Your task to perform on an android device: star an email in the gmail app Image 0: 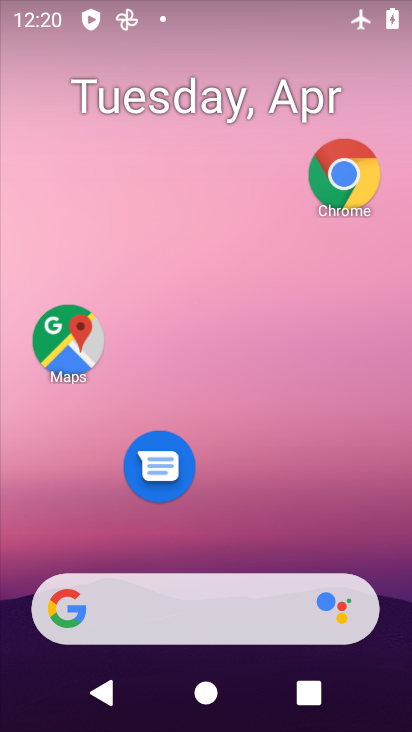
Step 0: drag from (263, 509) to (196, 12)
Your task to perform on an android device: star an email in the gmail app Image 1: 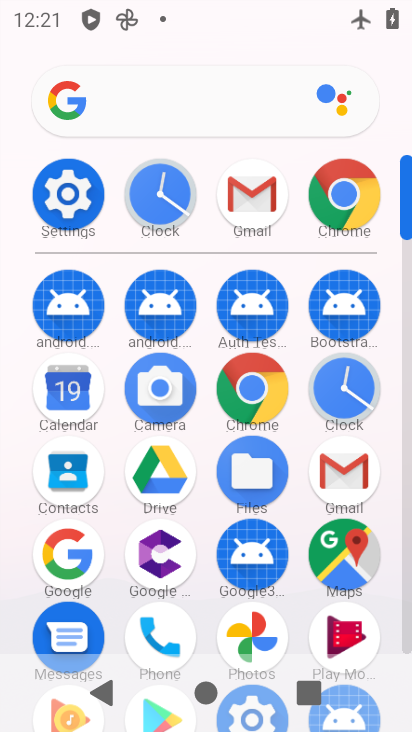
Step 1: click (261, 228)
Your task to perform on an android device: star an email in the gmail app Image 2: 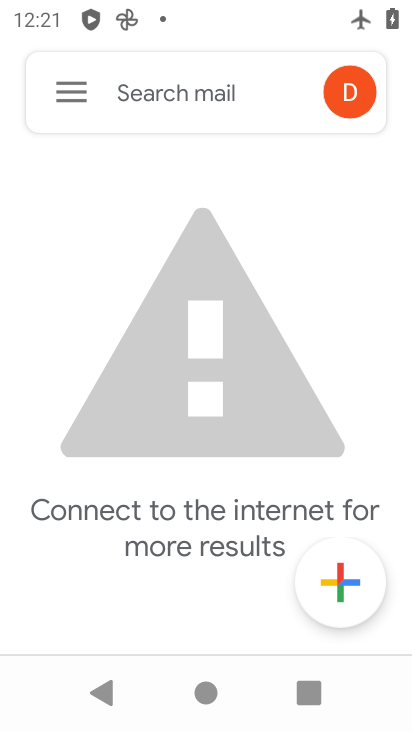
Step 2: click (70, 99)
Your task to perform on an android device: star an email in the gmail app Image 3: 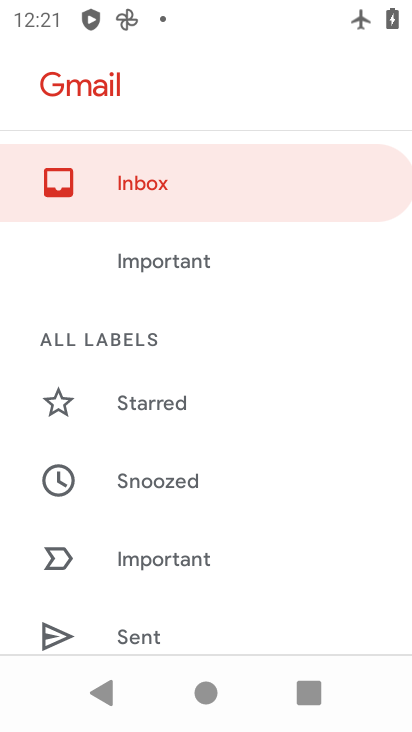
Step 3: drag from (166, 532) to (193, 138)
Your task to perform on an android device: star an email in the gmail app Image 4: 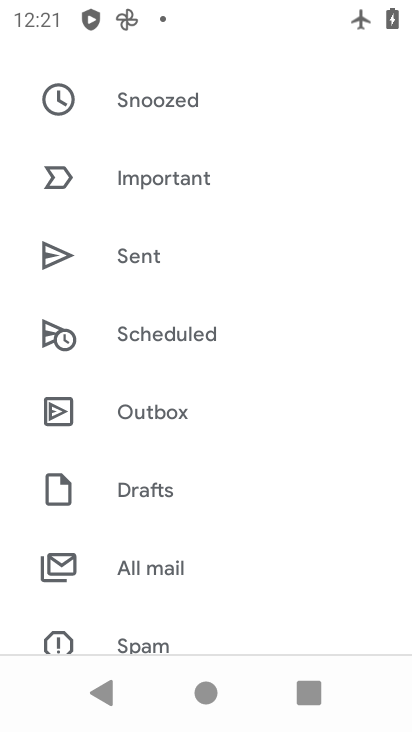
Step 4: drag from (181, 543) to (201, 282)
Your task to perform on an android device: star an email in the gmail app Image 5: 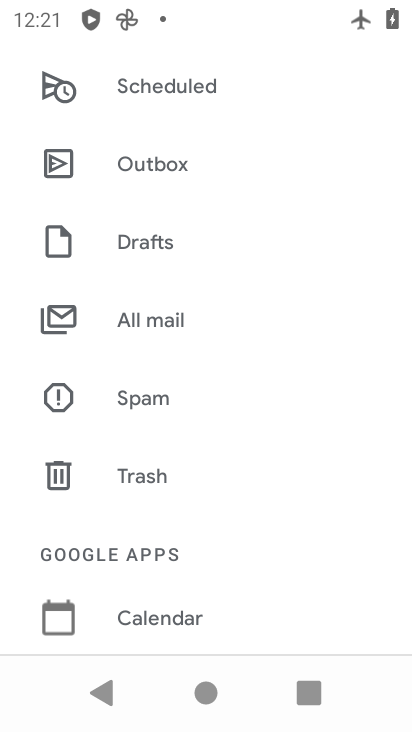
Step 5: click (175, 312)
Your task to perform on an android device: star an email in the gmail app Image 6: 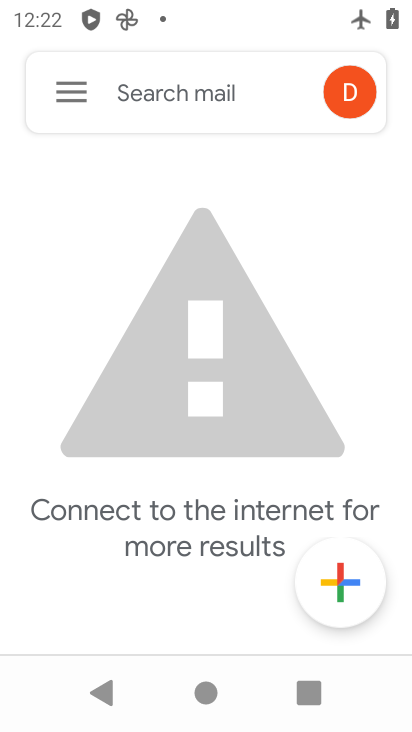
Step 6: task complete